Your task to perform on an android device: Go to Amazon Image 0: 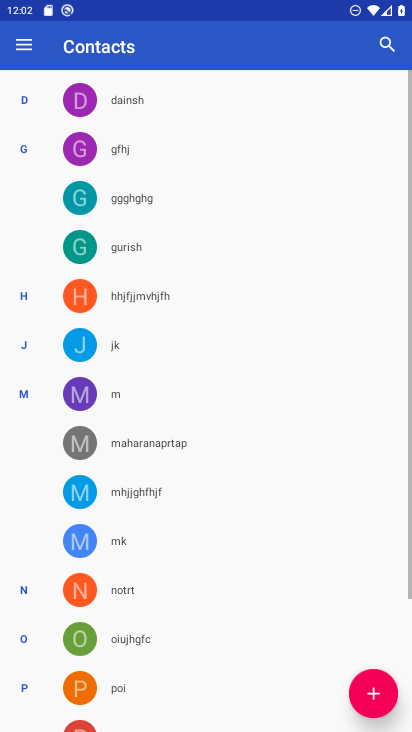
Step 0: drag from (386, 698) to (380, 485)
Your task to perform on an android device: Go to Amazon Image 1: 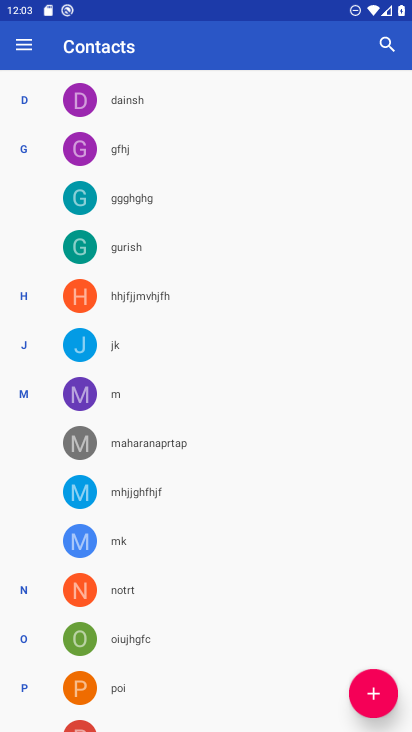
Step 1: press home button
Your task to perform on an android device: Go to Amazon Image 2: 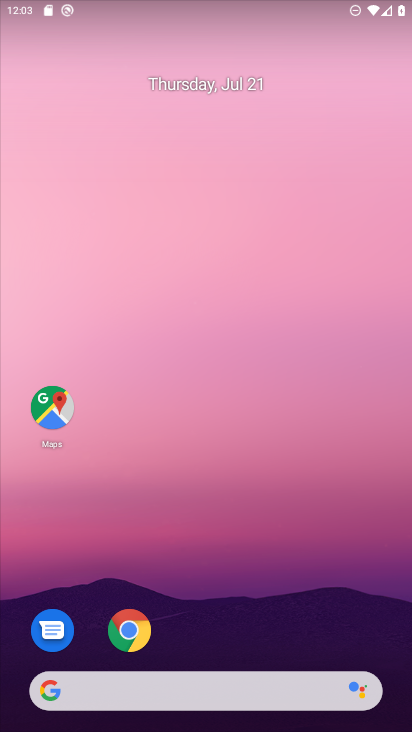
Step 2: click (140, 626)
Your task to perform on an android device: Go to Amazon Image 3: 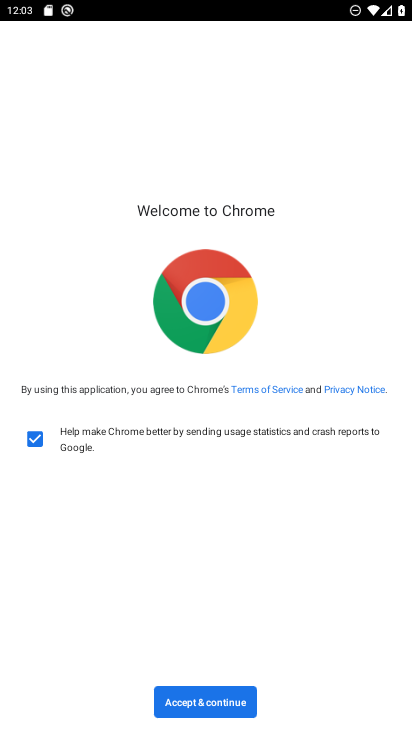
Step 3: click (224, 693)
Your task to perform on an android device: Go to Amazon Image 4: 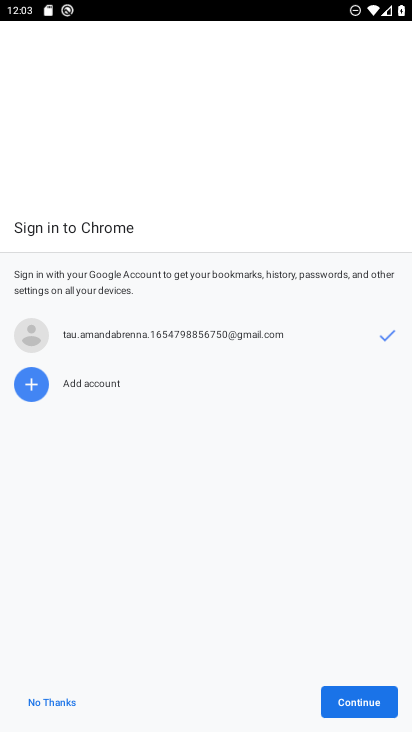
Step 4: click (368, 693)
Your task to perform on an android device: Go to Amazon Image 5: 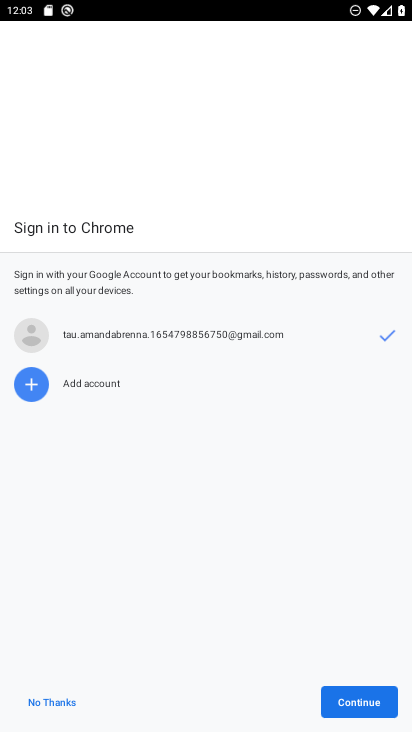
Step 5: click (368, 696)
Your task to perform on an android device: Go to Amazon Image 6: 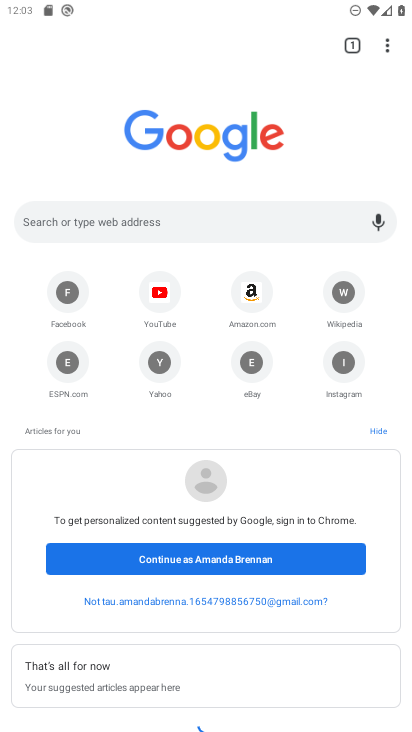
Step 6: click (187, 49)
Your task to perform on an android device: Go to Amazon Image 7: 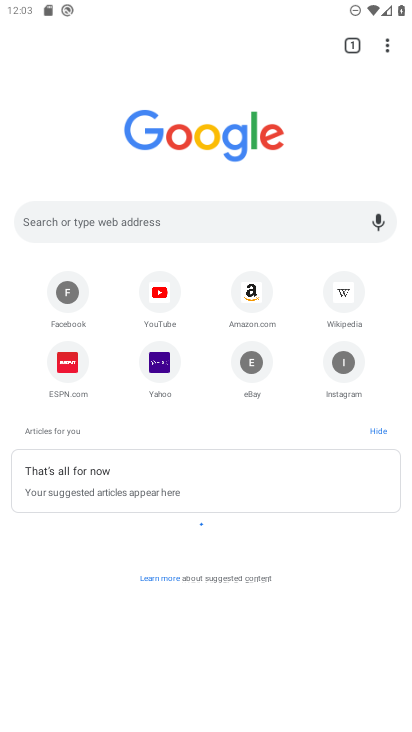
Step 7: click (136, 223)
Your task to perform on an android device: Go to Amazon Image 8: 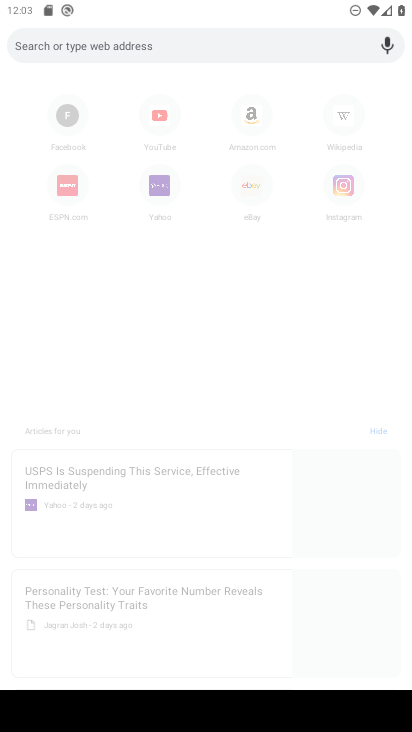
Step 8: type "Amazon"
Your task to perform on an android device: Go to Amazon Image 9: 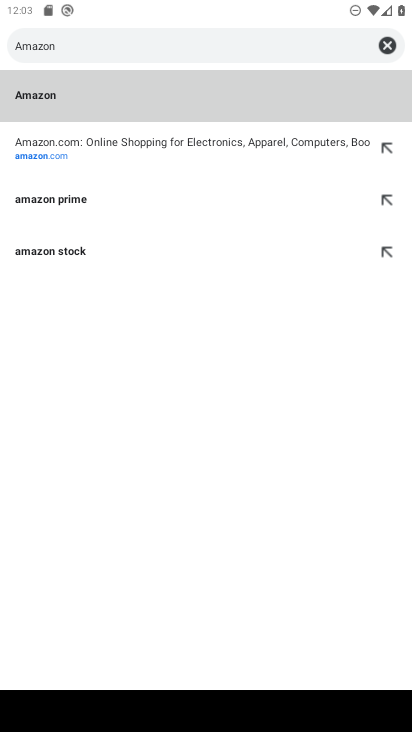
Step 9: click (50, 93)
Your task to perform on an android device: Go to Amazon Image 10: 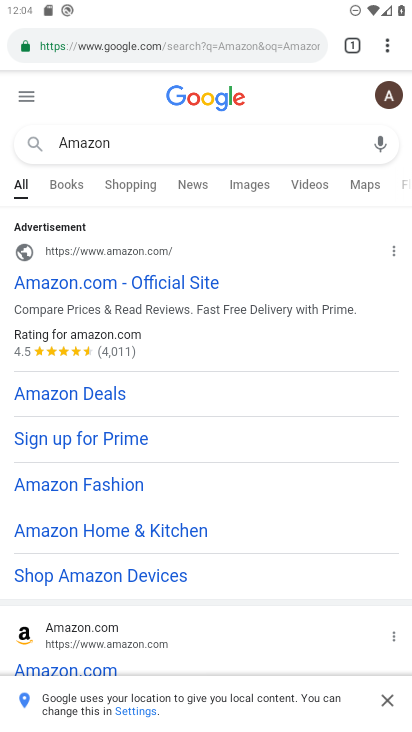
Step 10: task complete